Your task to perform on an android device: uninstall "Messages" Image 0: 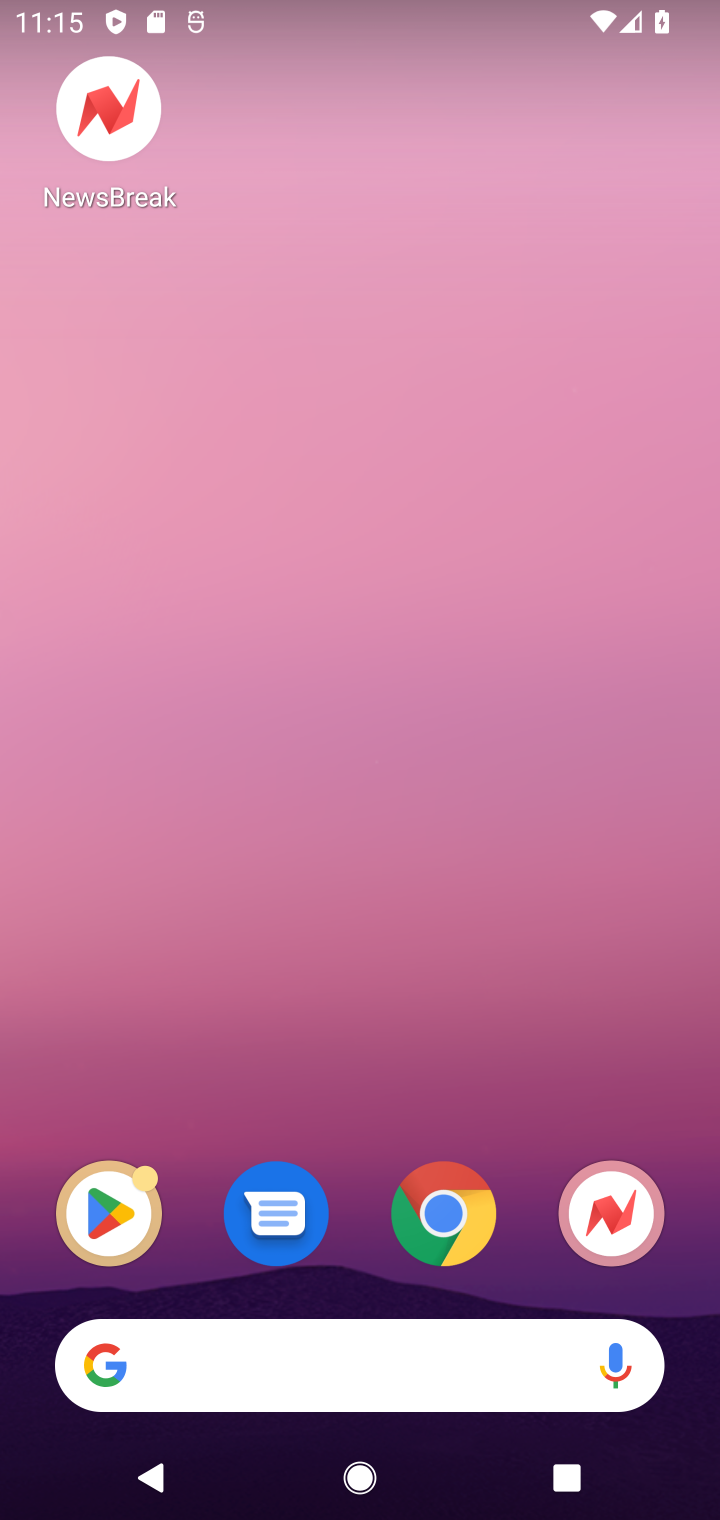
Step 0: drag from (383, 1288) to (385, 628)
Your task to perform on an android device: uninstall "Messages" Image 1: 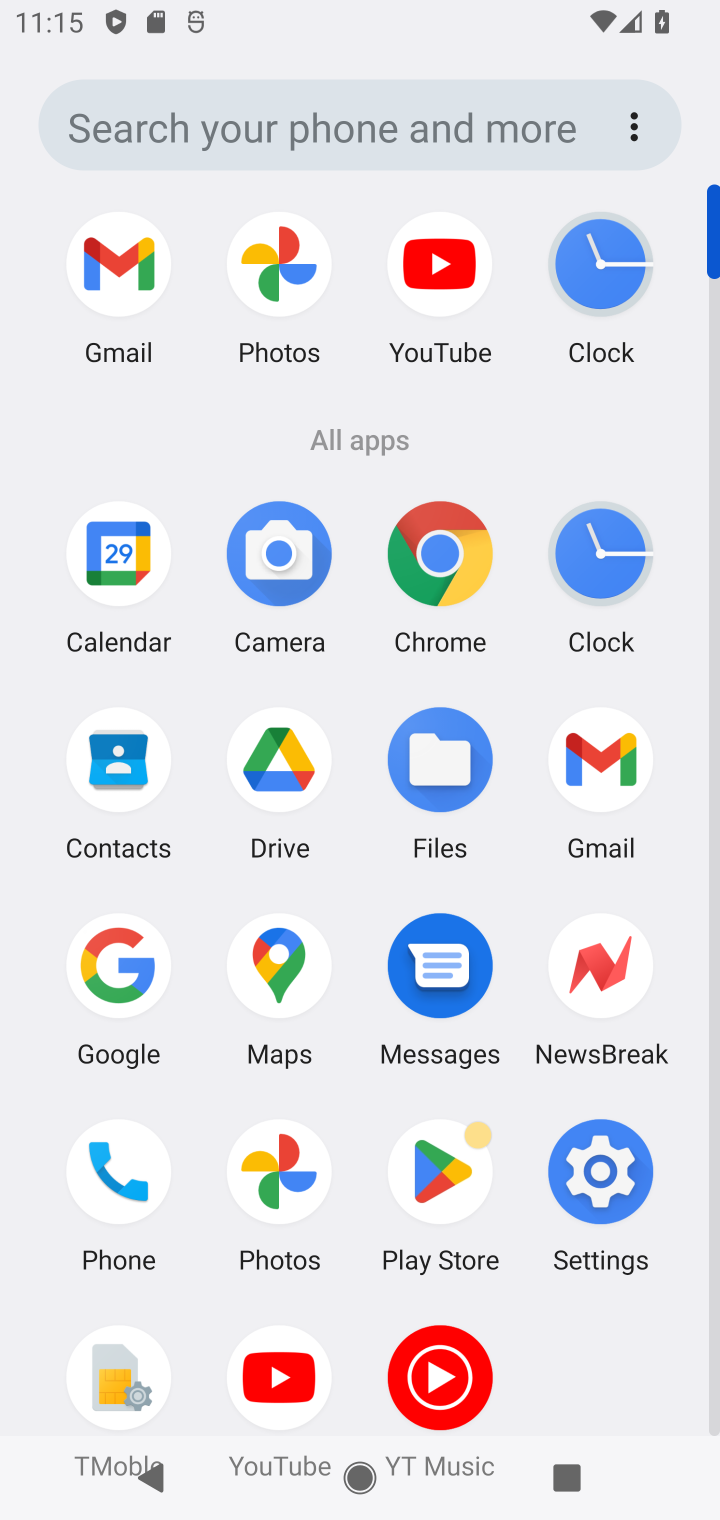
Step 1: click (452, 1158)
Your task to perform on an android device: uninstall "Messages" Image 2: 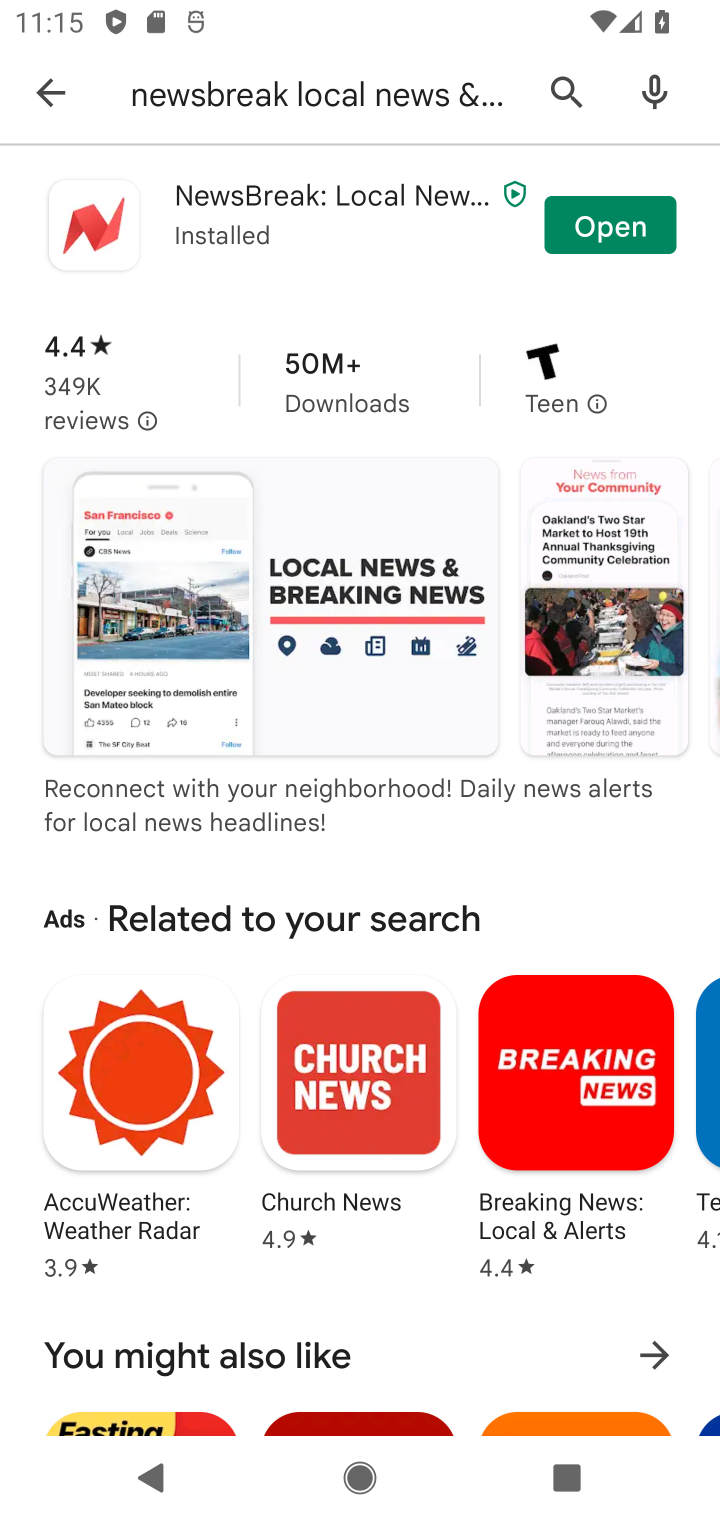
Step 2: click (561, 74)
Your task to perform on an android device: uninstall "Messages" Image 3: 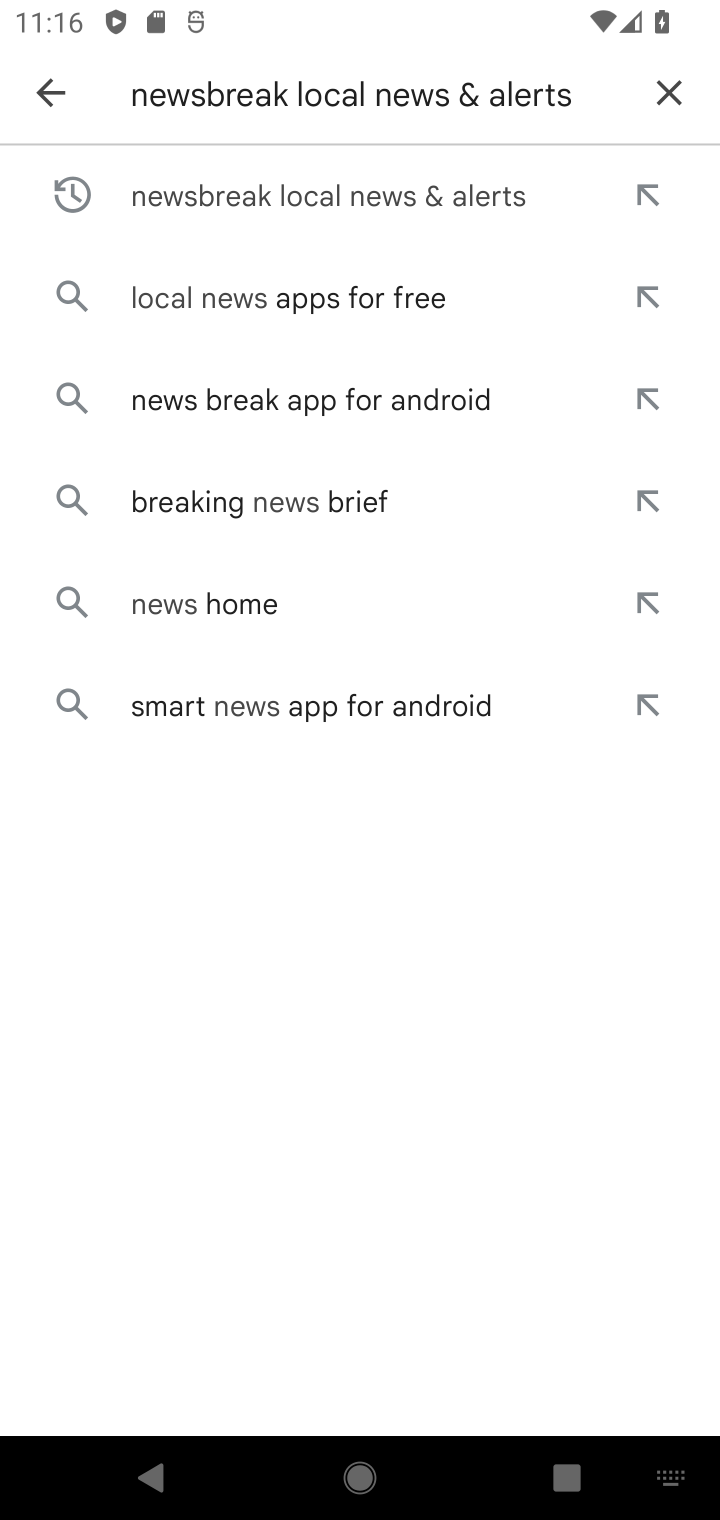
Step 3: click (659, 88)
Your task to perform on an android device: uninstall "Messages" Image 4: 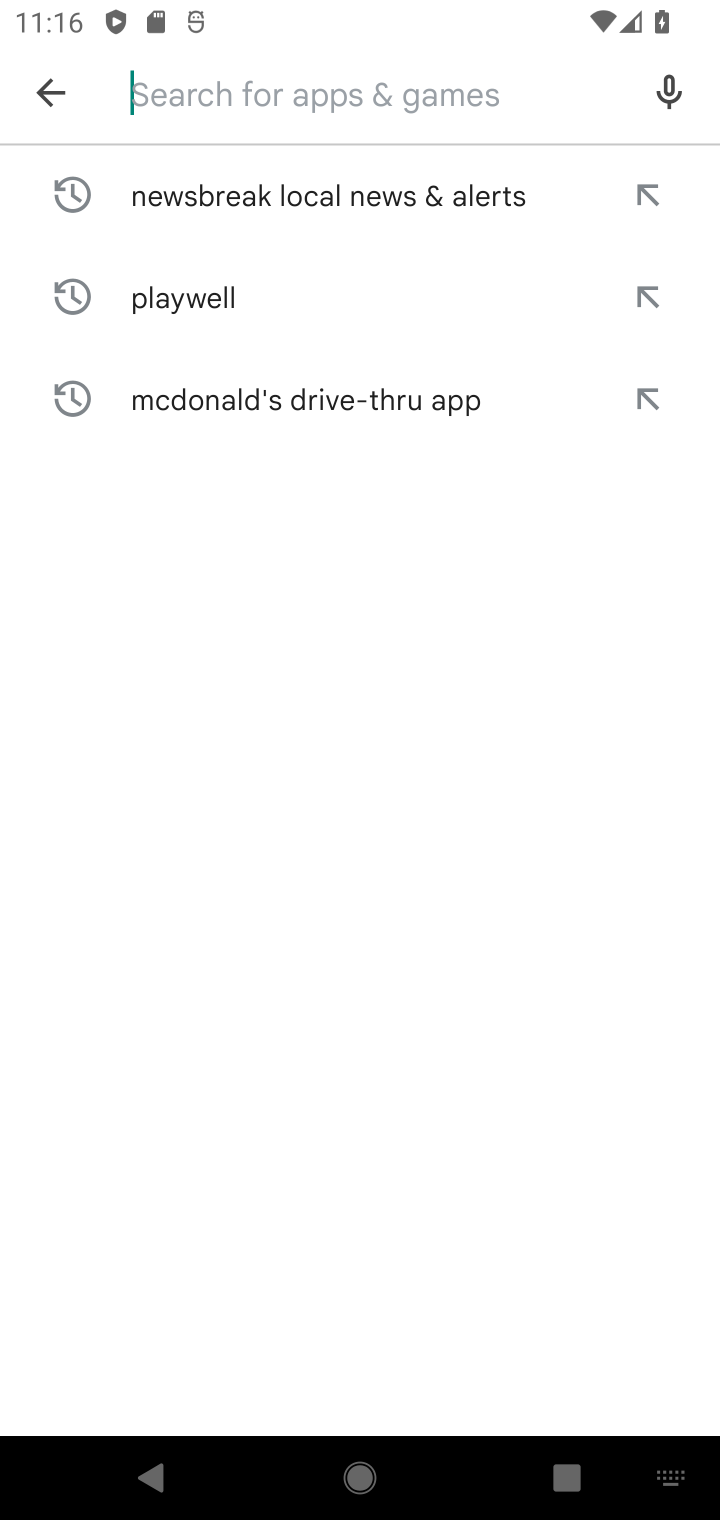
Step 4: type "Messages"
Your task to perform on an android device: uninstall "Messages" Image 5: 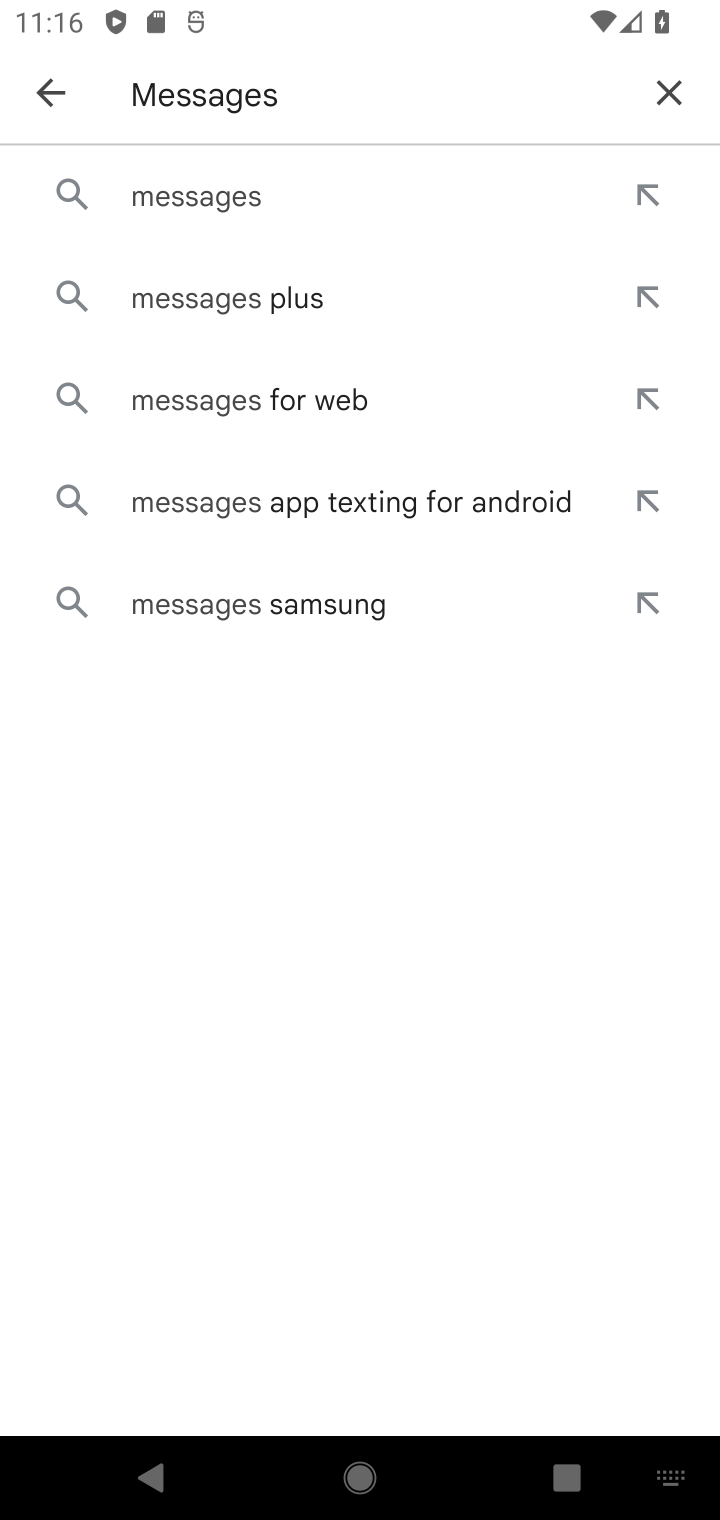
Step 5: click (211, 189)
Your task to perform on an android device: uninstall "Messages" Image 6: 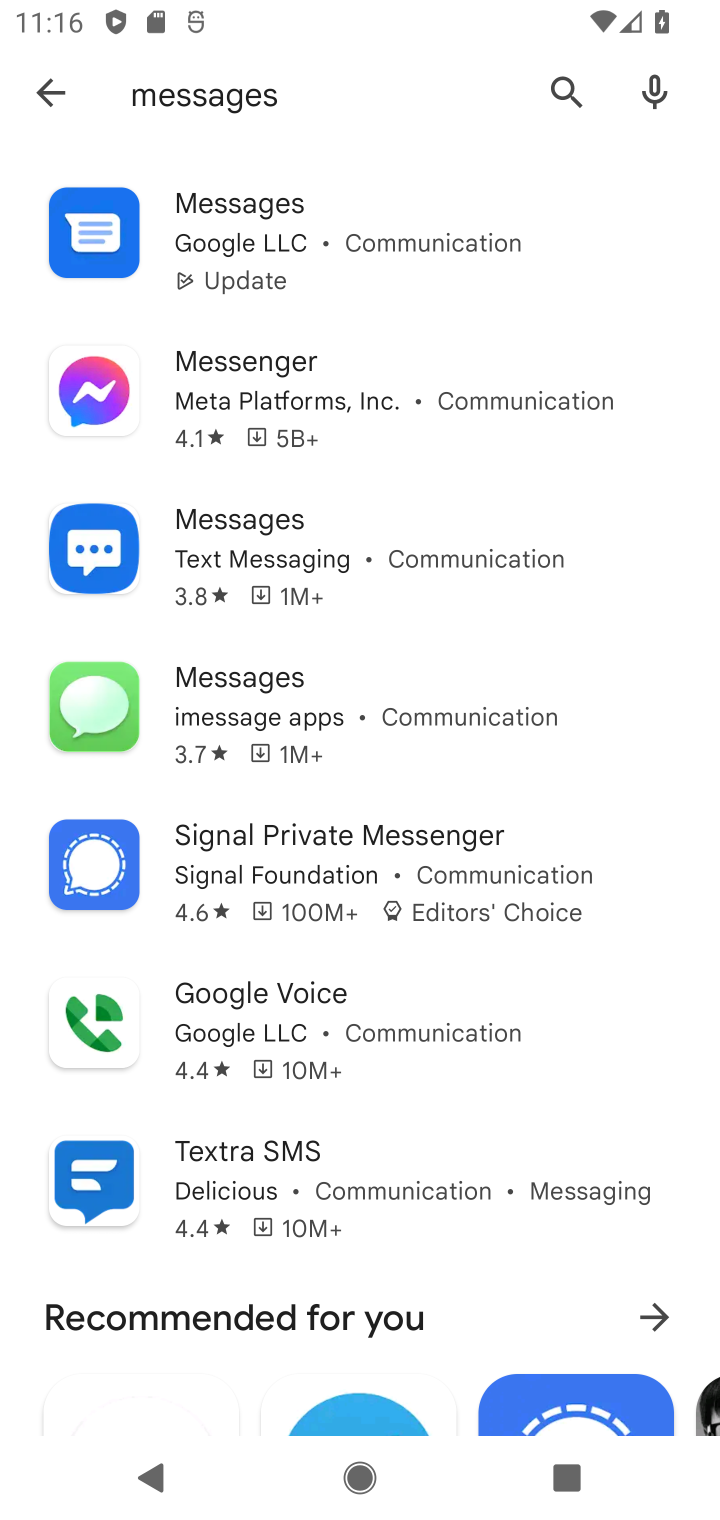
Step 6: click (226, 194)
Your task to perform on an android device: uninstall "Messages" Image 7: 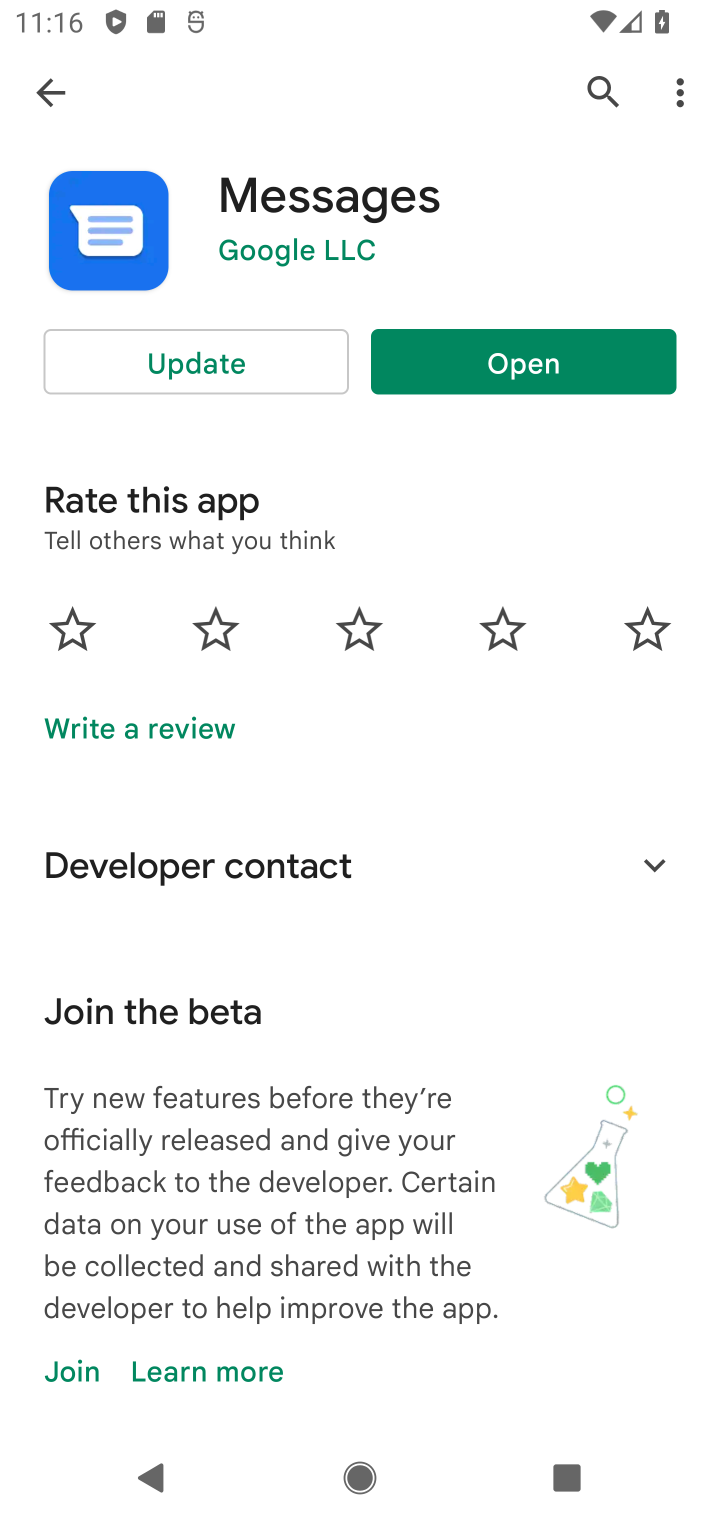
Step 7: task complete